Your task to perform on an android device: toggle pop-ups in chrome Image 0: 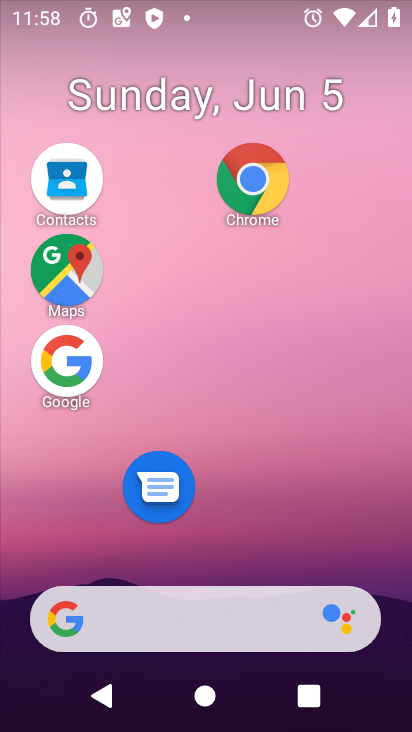
Step 0: drag from (289, 640) to (320, 92)
Your task to perform on an android device: toggle pop-ups in chrome Image 1: 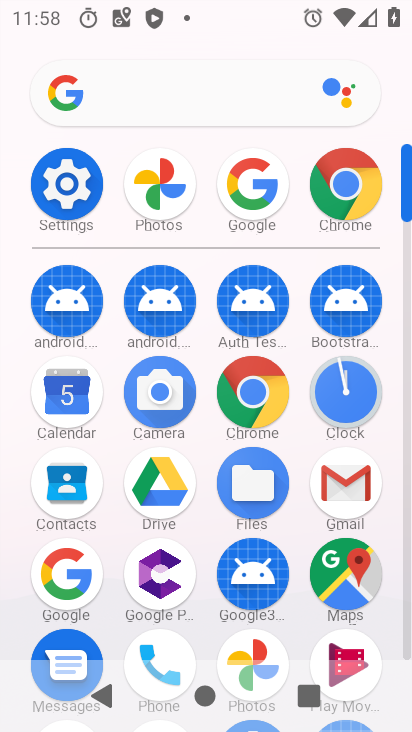
Step 1: click (359, 191)
Your task to perform on an android device: toggle pop-ups in chrome Image 2: 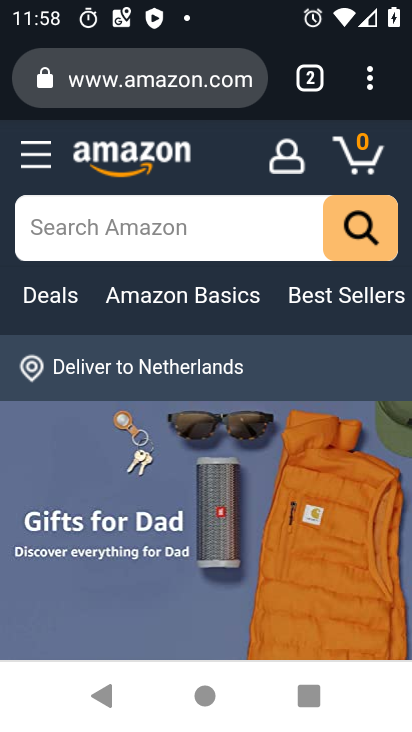
Step 2: click (383, 75)
Your task to perform on an android device: toggle pop-ups in chrome Image 3: 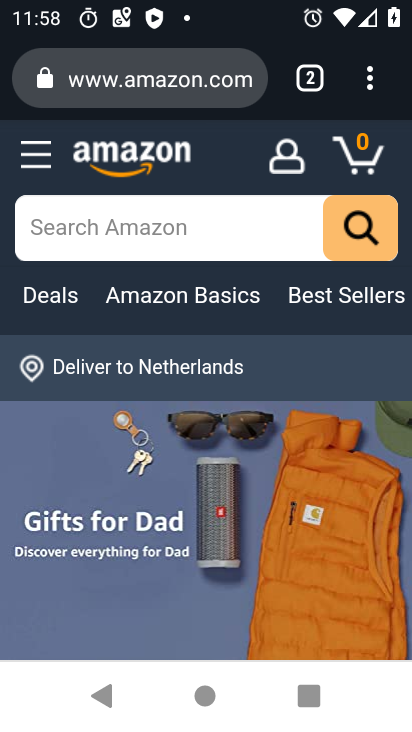
Step 3: click (385, 97)
Your task to perform on an android device: toggle pop-ups in chrome Image 4: 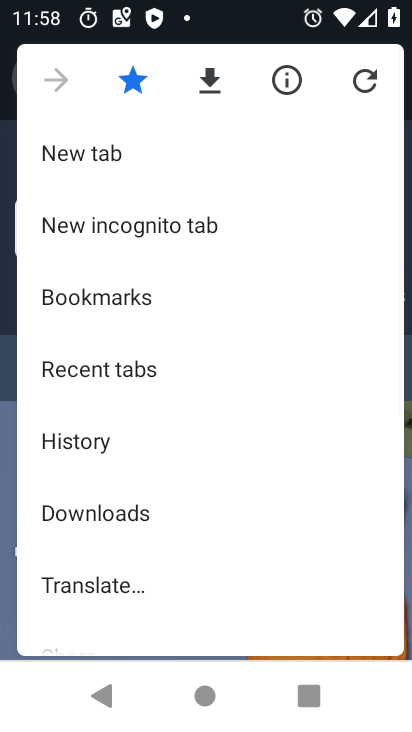
Step 4: drag from (259, 547) to (272, 129)
Your task to perform on an android device: toggle pop-ups in chrome Image 5: 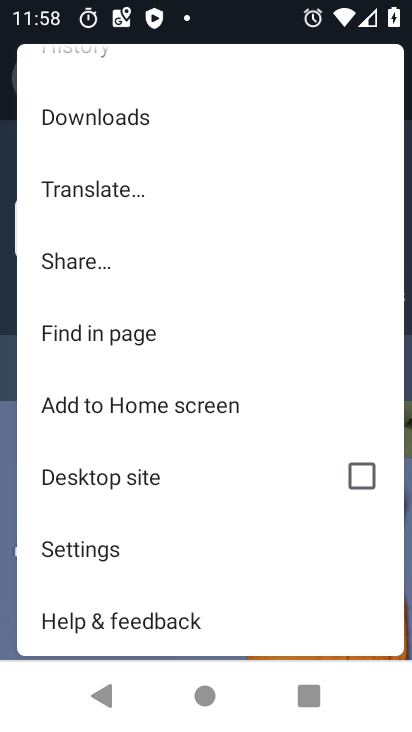
Step 5: click (183, 543)
Your task to perform on an android device: toggle pop-ups in chrome Image 6: 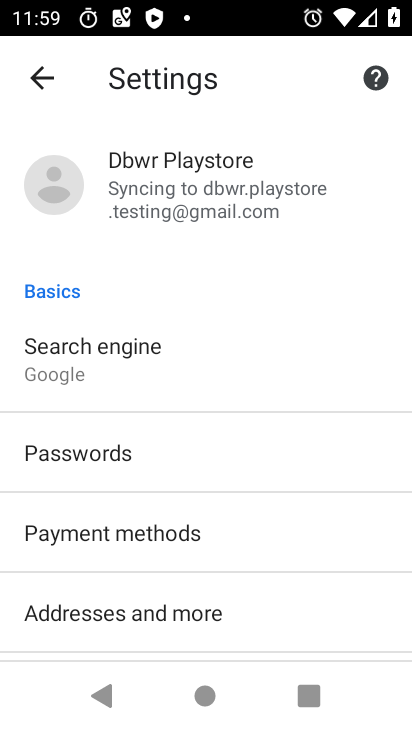
Step 6: drag from (202, 515) to (207, 246)
Your task to perform on an android device: toggle pop-ups in chrome Image 7: 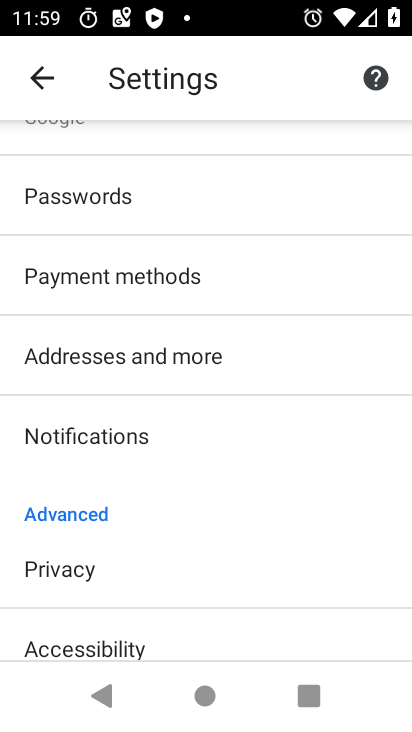
Step 7: drag from (134, 588) to (188, 264)
Your task to perform on an android device: toggle pop-ups in chrome Image 8: 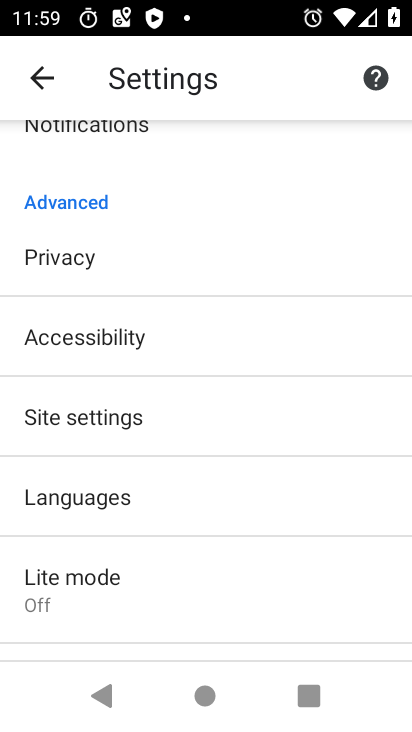
Step 8: drag from (163, 541) to (198, 292)
Your task to perform on an android device: toggle pop-ups in chrome Image 9: 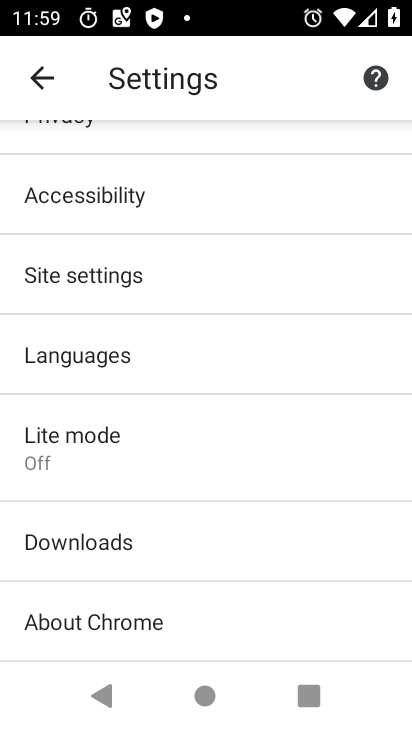
Step 9: click (147, 275)
Your task to perform on an android device: toggle pop-ups in chrome Image 10: 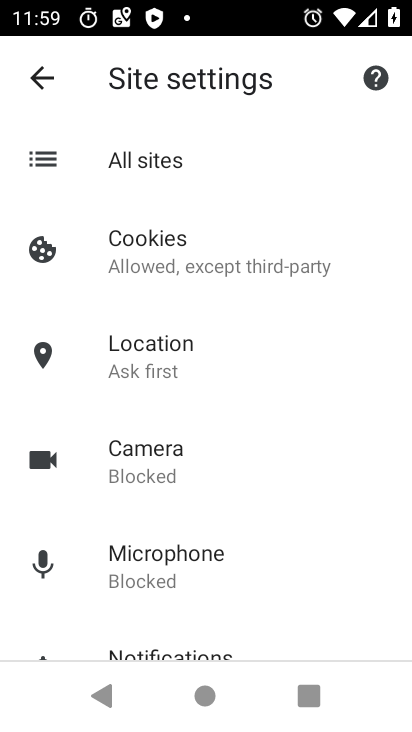
Step 10: drag from (173, 522) to (222, 241)
Your task to perform on an android device: toggle pop-ups in chrome Image 11: 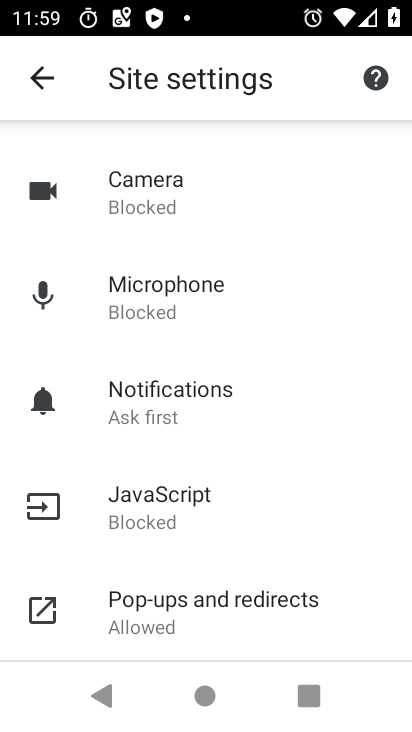
Step 11: click (226, 618)
Your task to perform on an android device: toggle pop-ups in chrome Image 12: 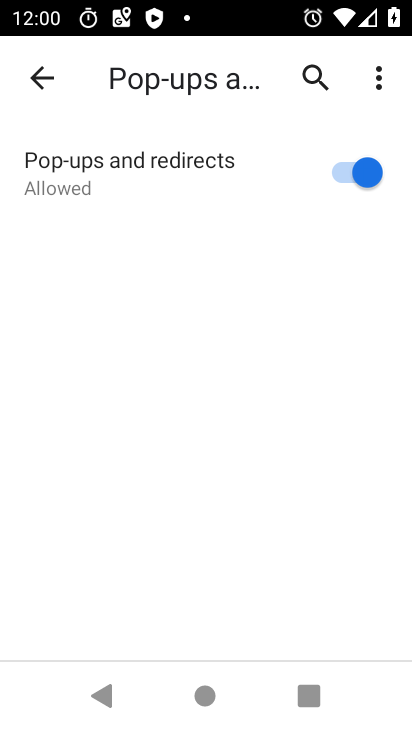
Step 12: click (344, 182)
Your task to perform on an android device: toggle pop-ups in chrome Image 13: 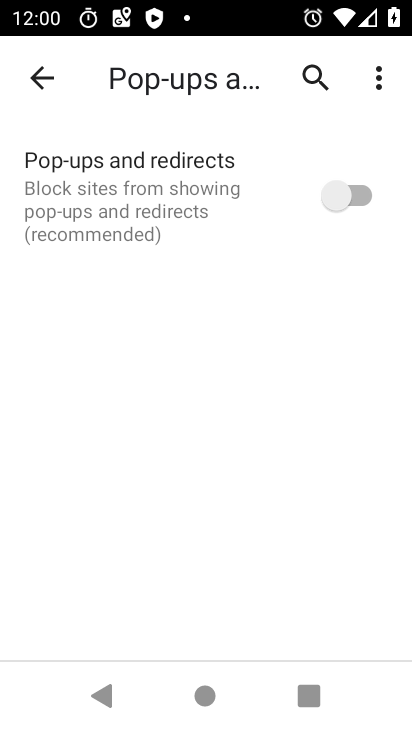
Step 13: task complete